Your task to perform on an android device: Open Wikipedia Image 0: 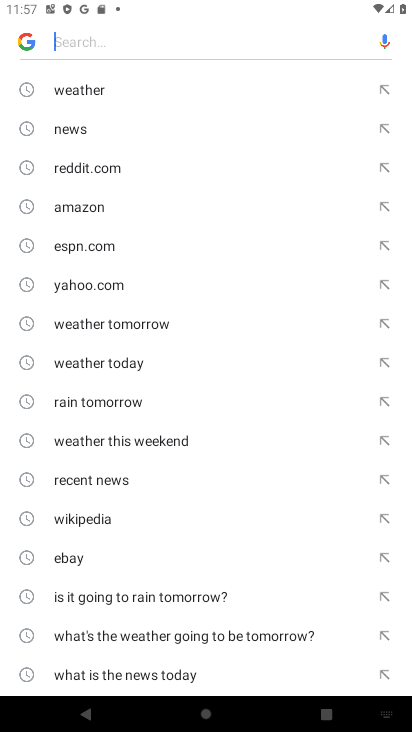
Step 0: press home button
Your task to perform on an android device: Open Wikipedia Image 1: 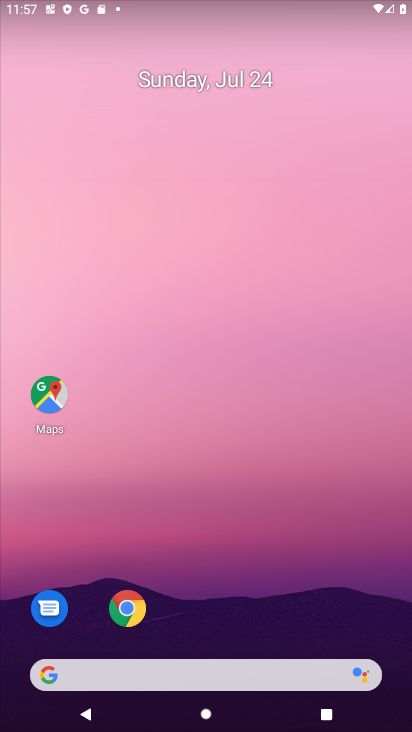
Step 1: drag from (281, 607) to (313, 0)
Your task to perform on an android device: Open Wikipedia Image 2: 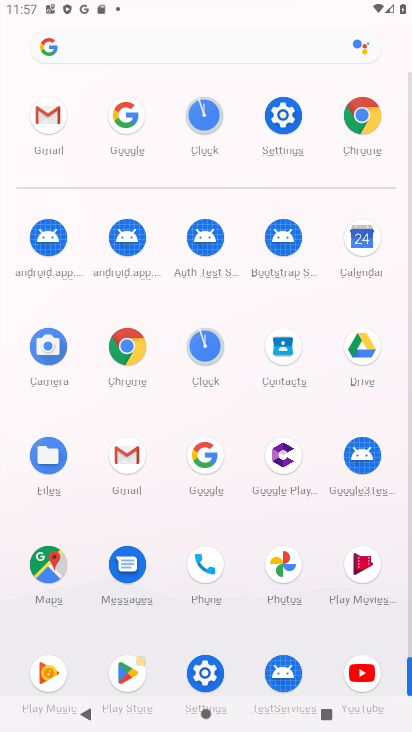
Step 2: click (371, 114)
Your task to perform on an android device: Open Wikipedia Image 3: 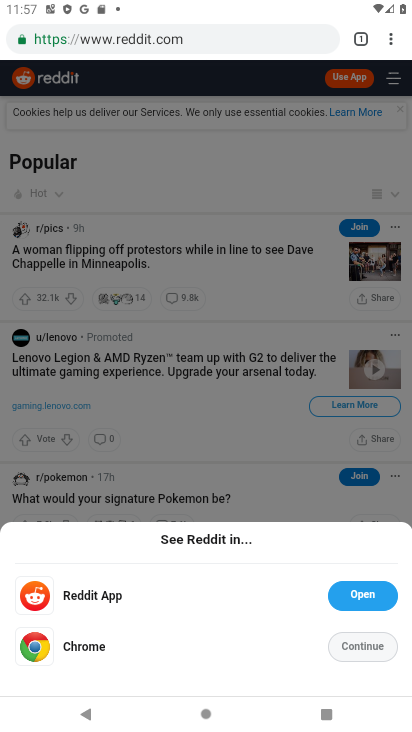
Step 3: click (257, 44)
Your task to perform on an android device: Open Wikipedia Image 4: 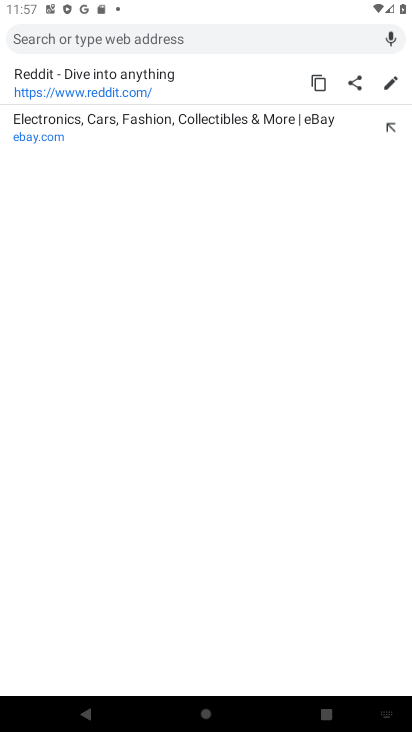
Step 4: press back button
Your task to perform on an android device: Open Wikipedia Image 5: 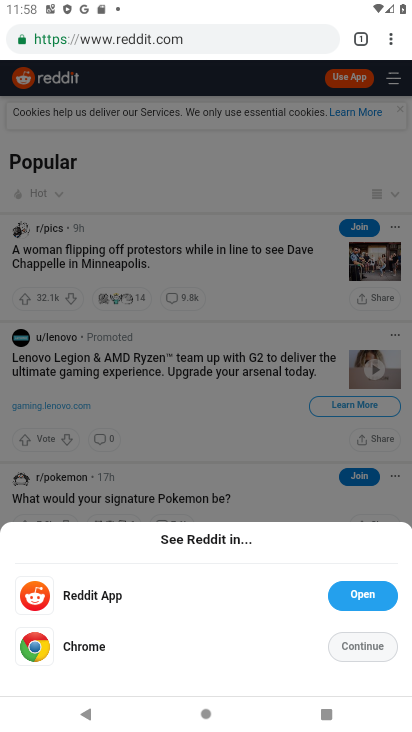
Step 5: press back button
Your task to perform on an android device: Open Wikipedia Image 6: 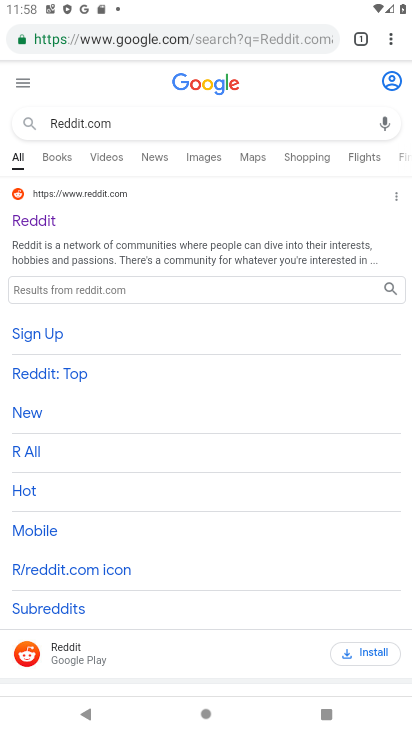
Step 6: press back button
Your task to perform on an android device: Open Wikipedia Image 7: 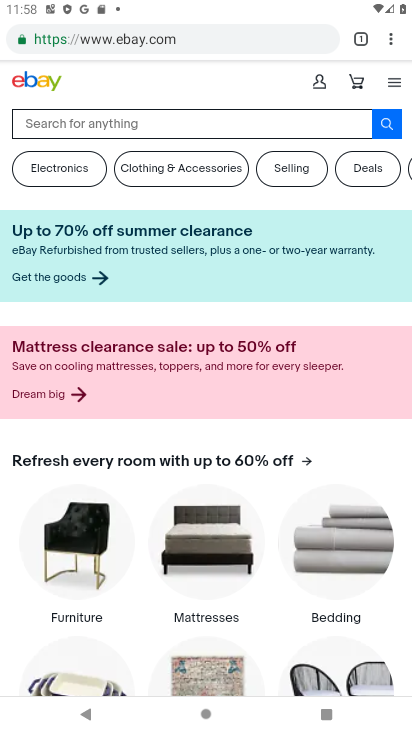
Step 7: press back button
Your task to perform on an android device: Open Wikipedia Image 8: 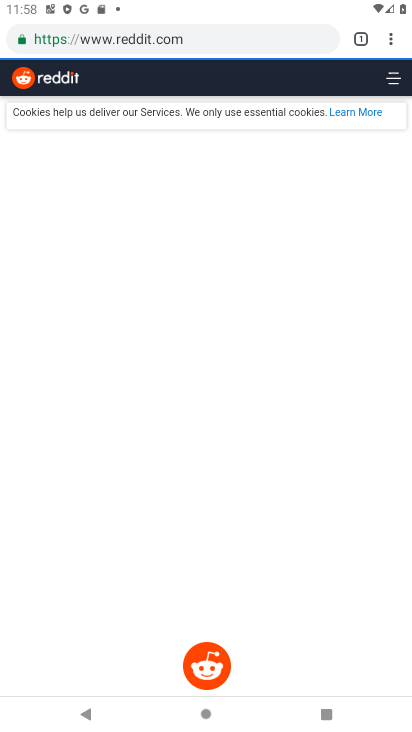
Step 8: press back button
Your task to perform on an android device: Open Wikipedia Image 9: 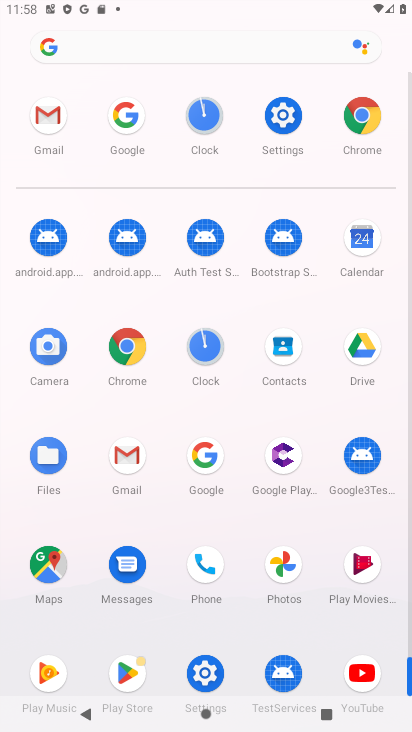
Step 9: click (358, 140)
Your task to perform on an android device: Open Wikipedia Image 10: 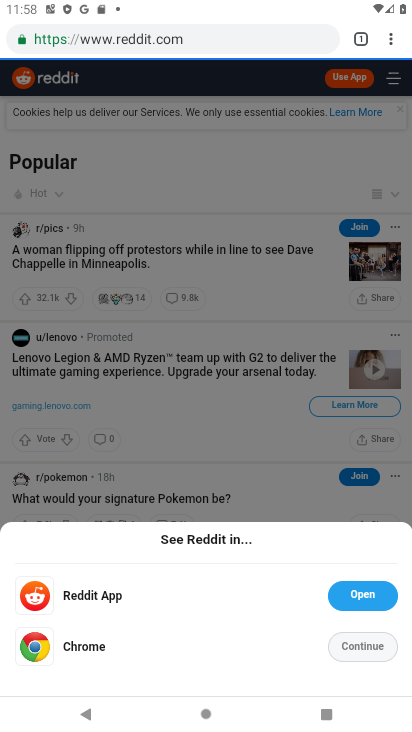
Step 10: click (260, 41)
Your task to perform on an android device: Open Wikipedia Image 11: 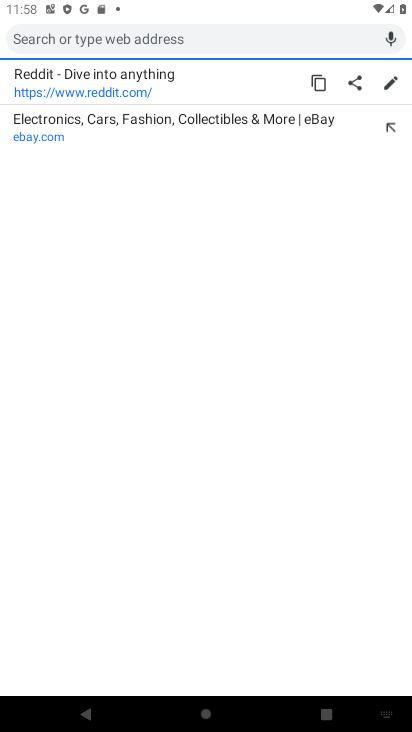
Step 11: type " Wikipedia"
Your task to perform on an android device: Open Wikipedia Image 12: 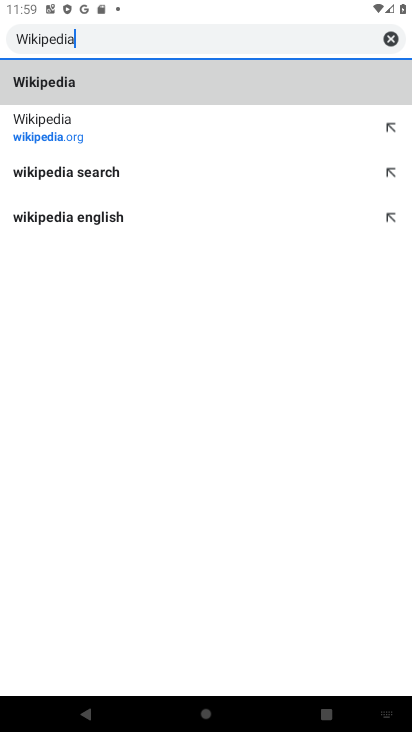
Step 12: click (25, 138)
Your task to perform on an android device: Open Wikipedia Image 13: 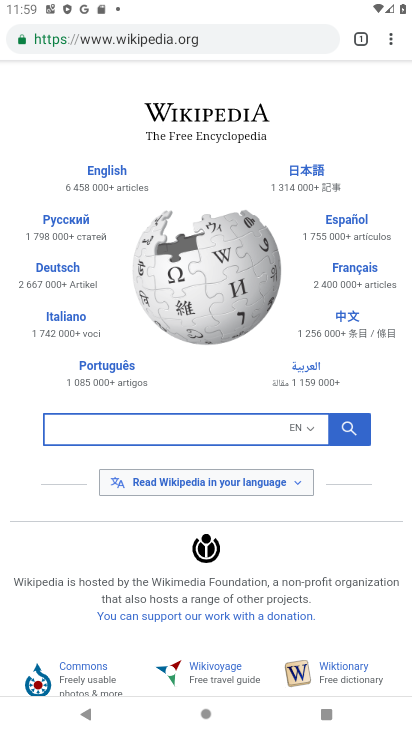
Step 13: task complete